Your task to perform on an android device: see tabs open on other devices in the chrome app Image 0: 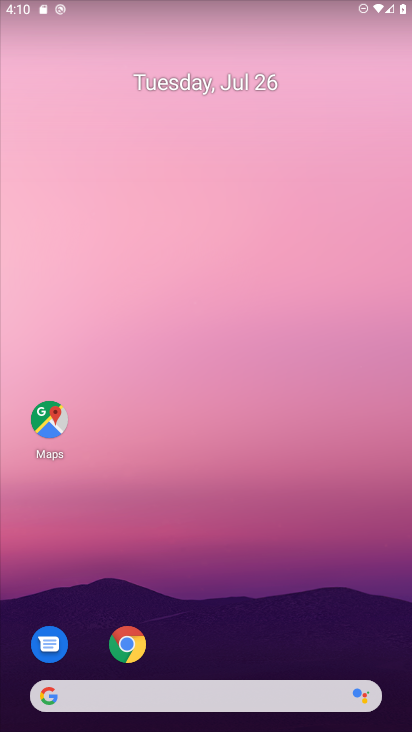
Step 0: click (127, 645)
Your task to perform on an android device: see tabs open on other devices in the chrome app Image 1: 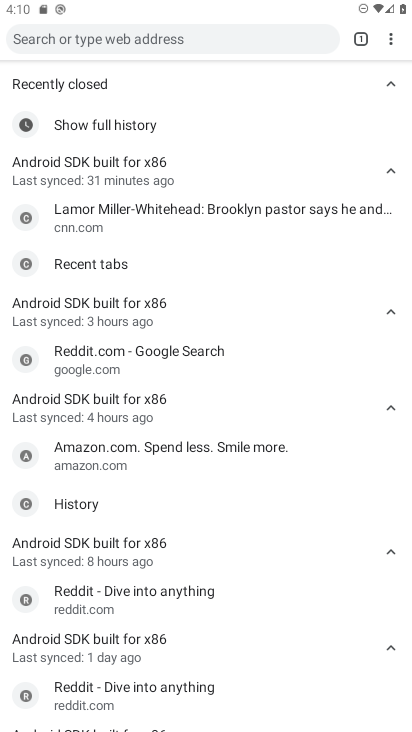
Step 1: click (392, 42)
Your task to perform on an android device: see tabs open on other devices in the chrome app Image 2: 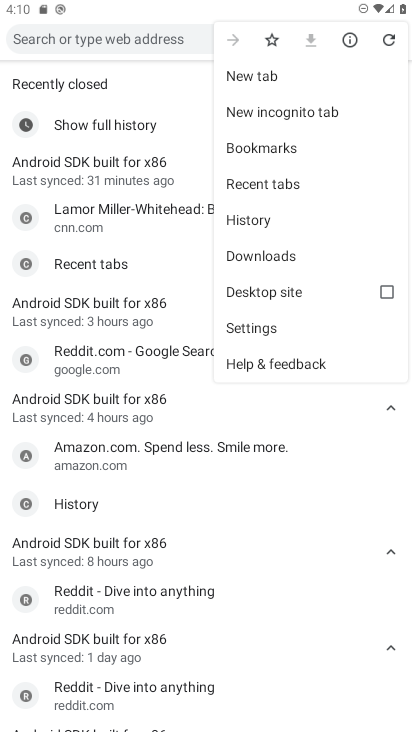
Step 2: click (257, 179)
Your task to perform on an android device: see tabs open on other devices in the chrome app Image 3: 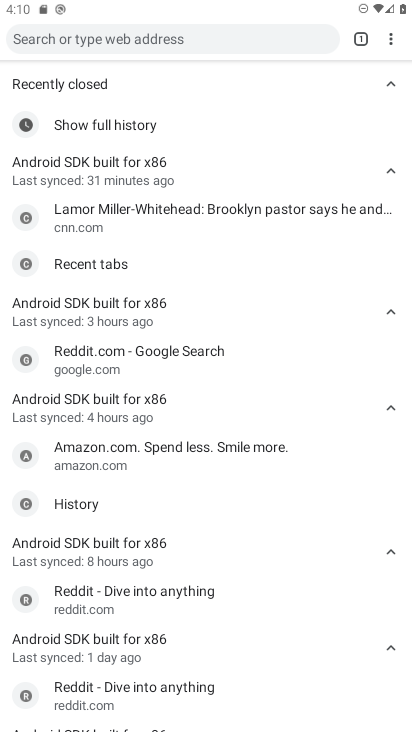
Step 3: task complete